Your task to perform on an android device: What's the weather today? Image 0: 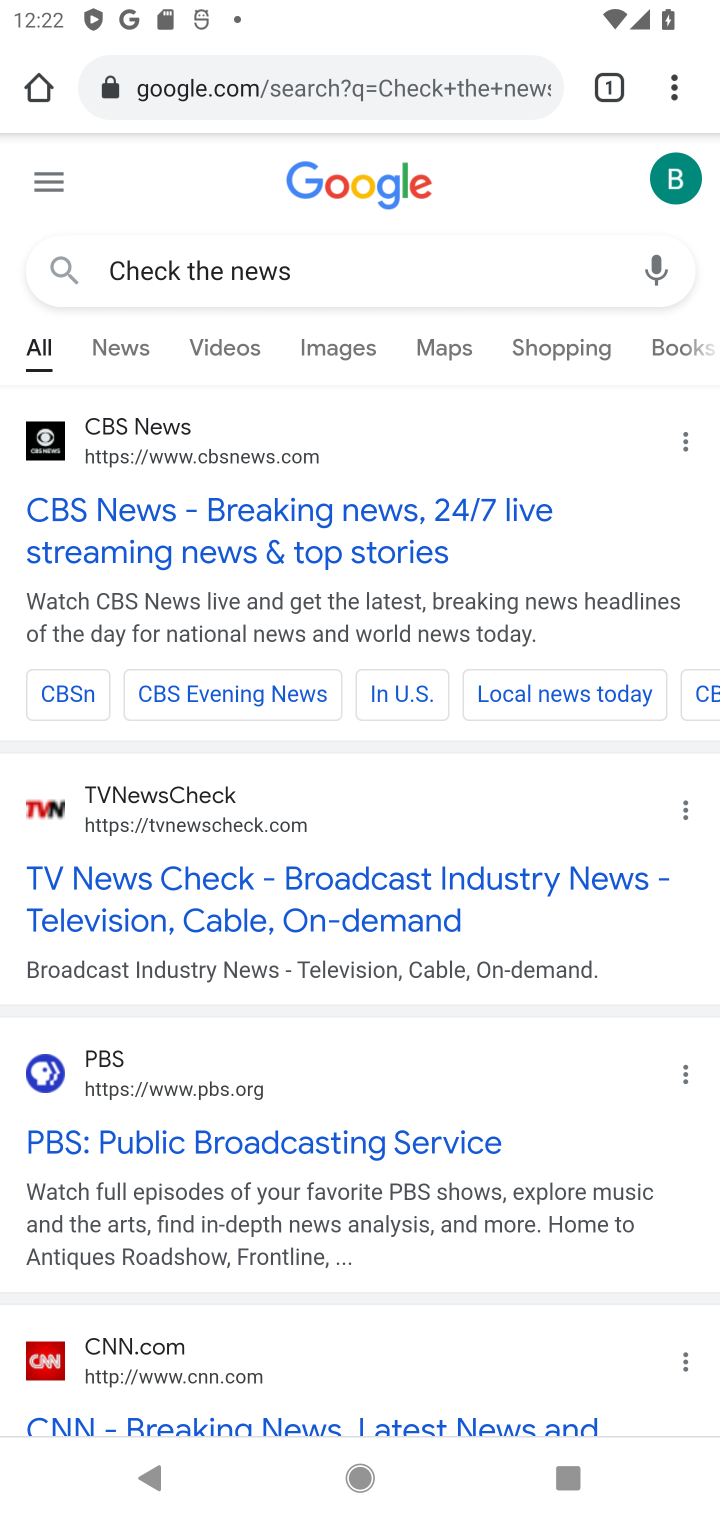
Step 0: click (398, 80)
Your task to perform on an android device: What's the weather today? Image 1: 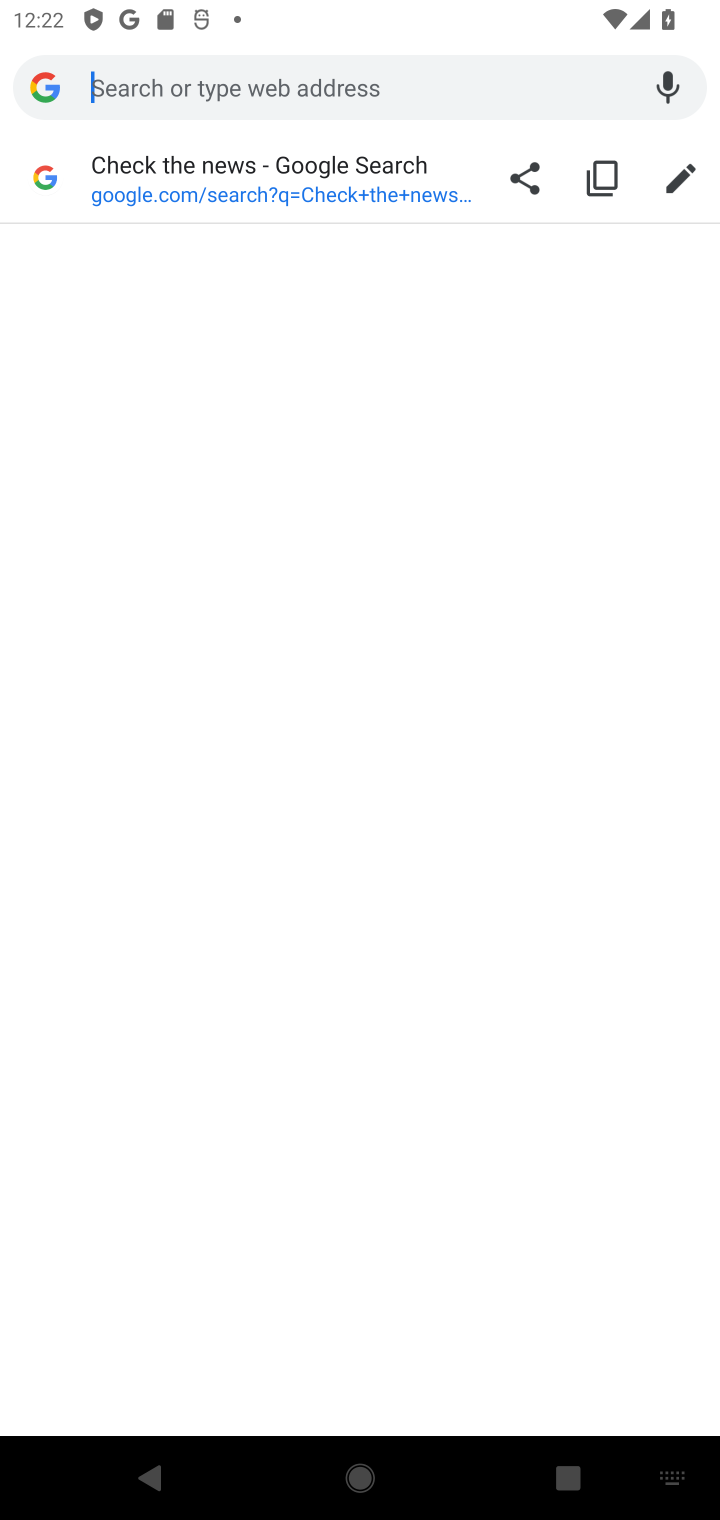
Step 1: type "What's the weather today?"
Your task to perform on an android device: What's the weather today? Image 2: 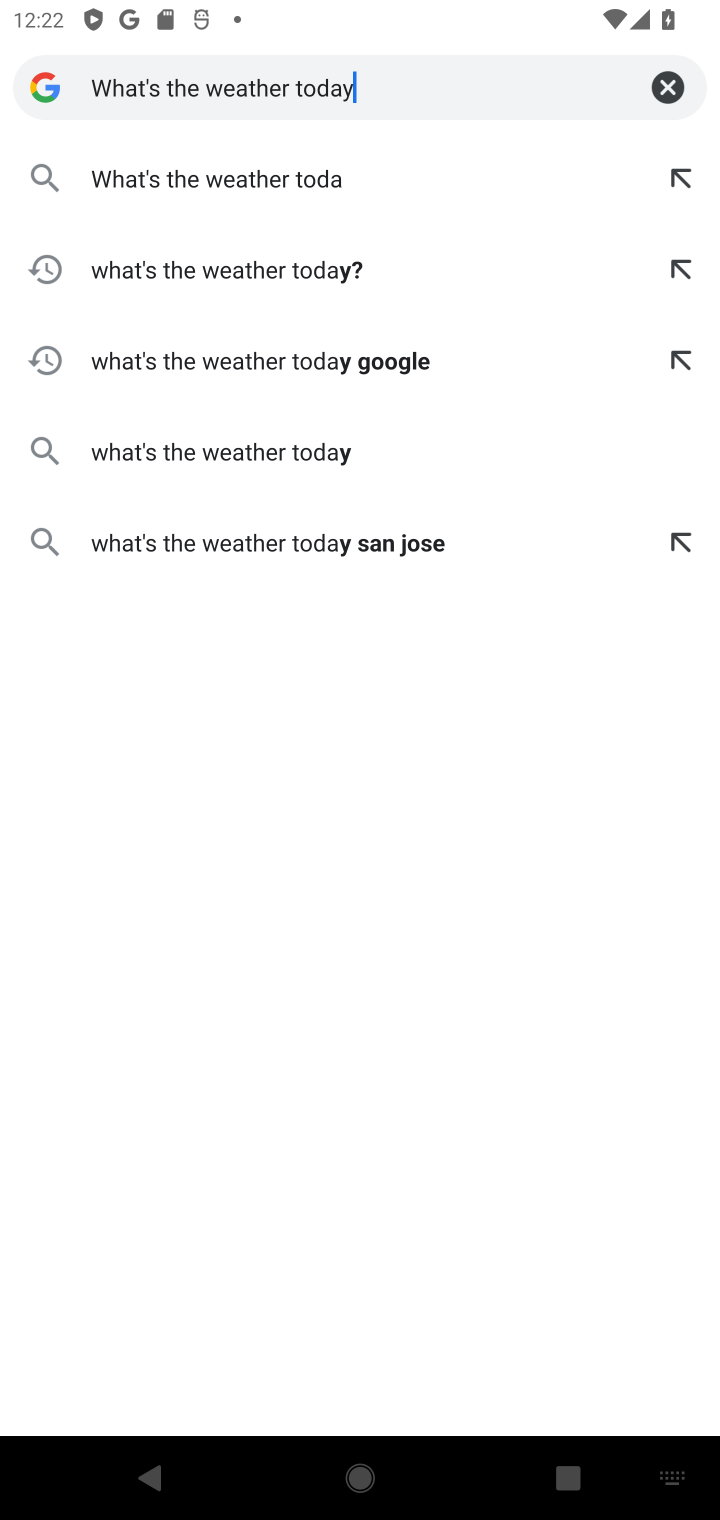
Step 2: press enter
Your task to perform on an android device: What's the weather today? Image 3: 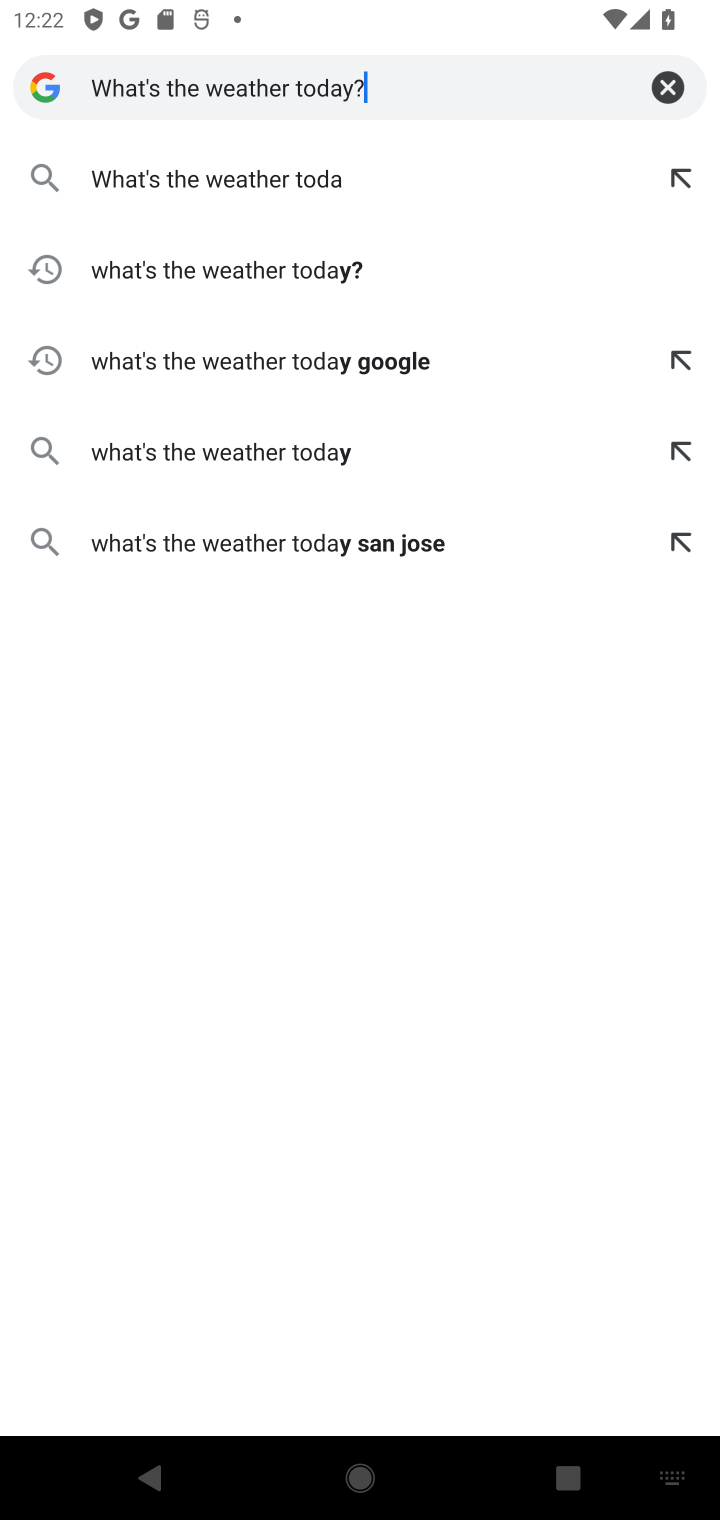
Step 3: type ""
Your task to perform on an android device: What's the weather today? Image 4: 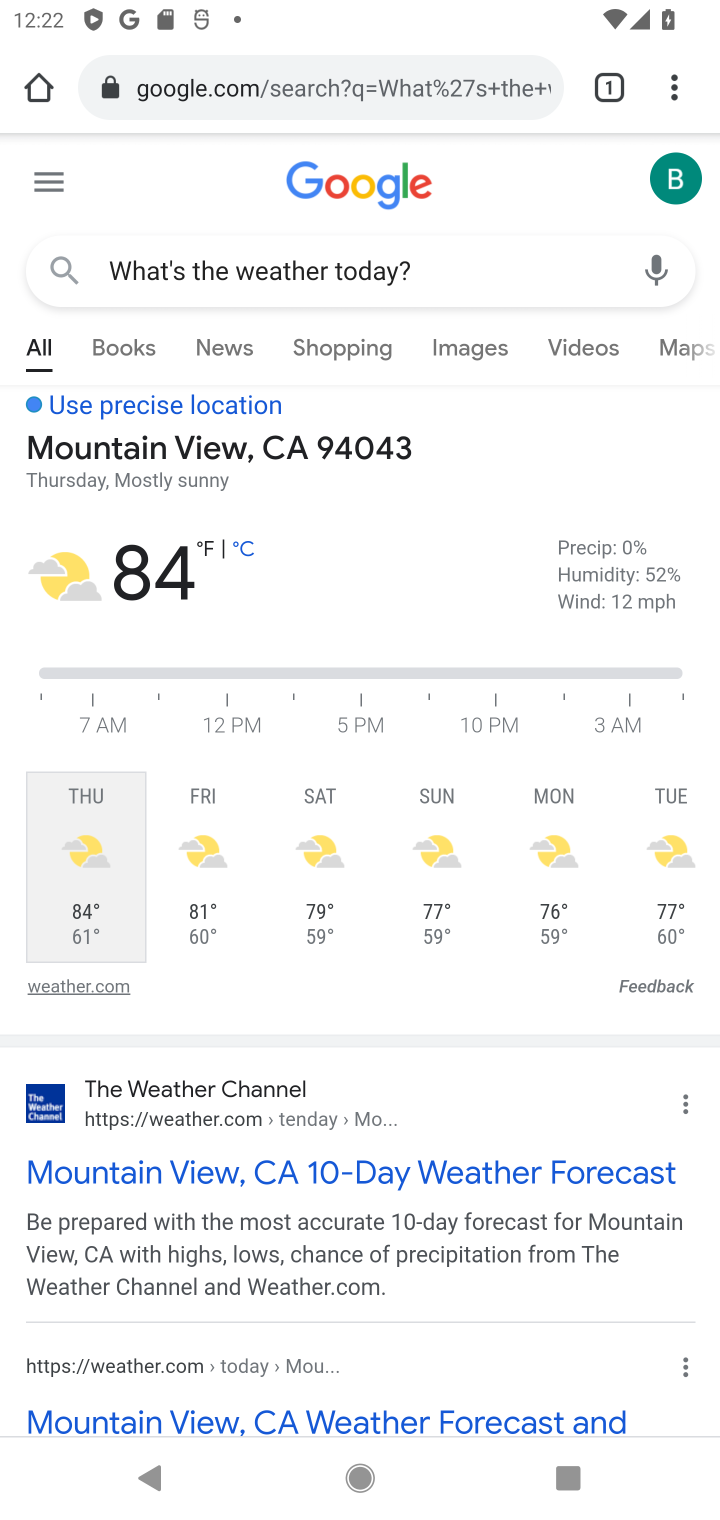
Step 4: task complete